Your task to perform on an android device: Show me popular games on the Play Store Image 0: 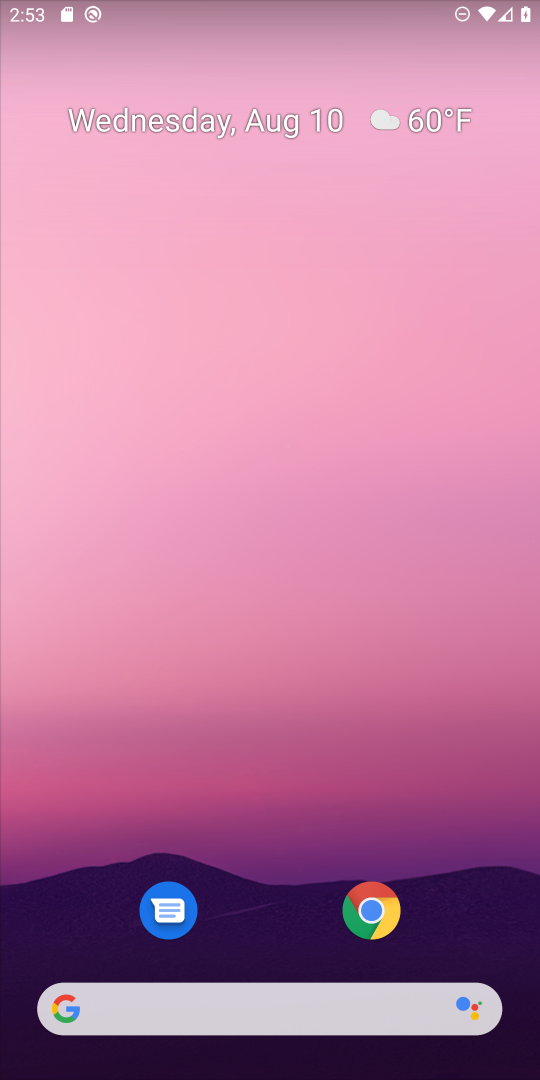
Step 0: drag from (311, 935) to (392, 391)
Your task to perform on an android device: Show me popular games on the Play Store Image 1: 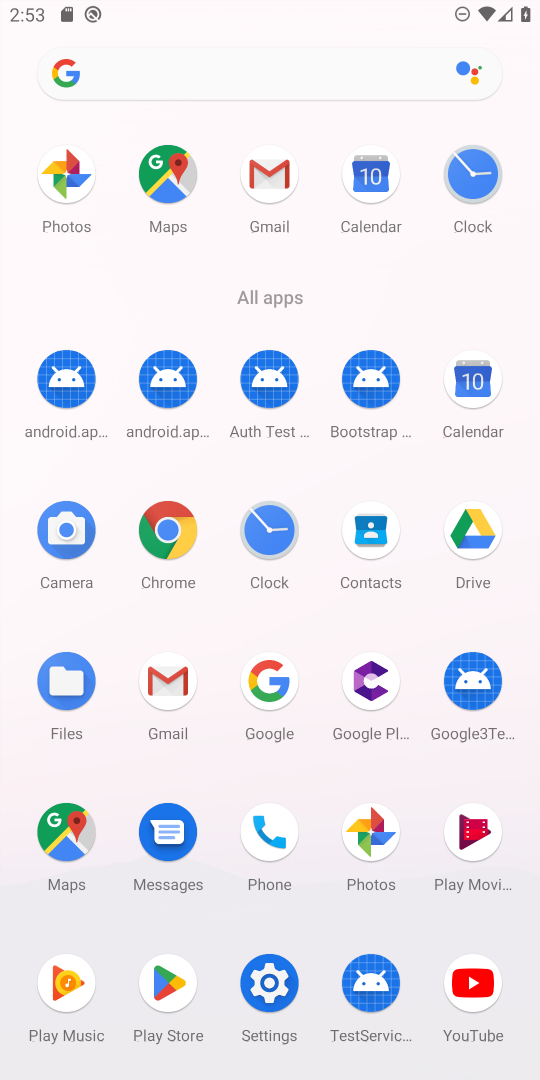
Step 1: click (168, 959)
Your task to perform on an android device: Show me popular games on the Play Store Image 2: 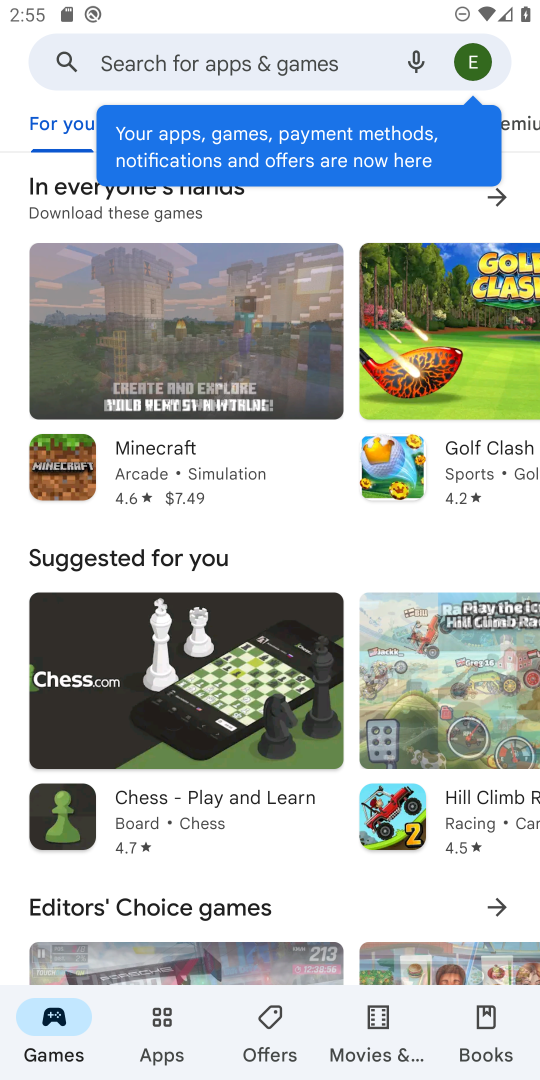
Step 2: task complete